Your task to perform on an android device: visit the assistant section in the google photos Image 0: 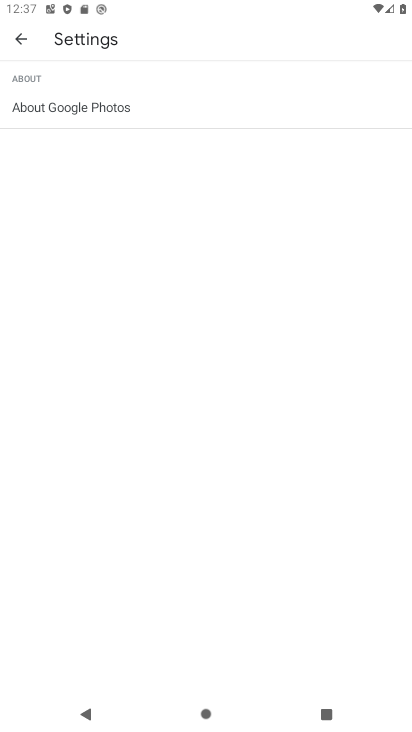
Step 0: press home button
Your task to perform on an android device: visit the assistant section in the google photos Image 1: 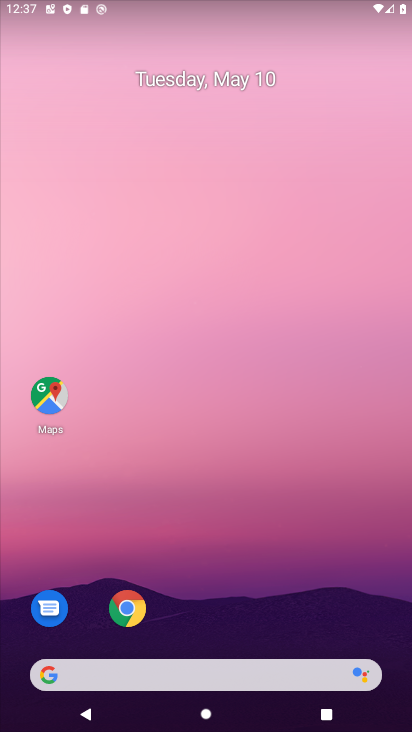
Step 1: drag from (223, 592) to (248, 40)
Your task to perform on an android device: visit the assistant section in the google photos Image 2: 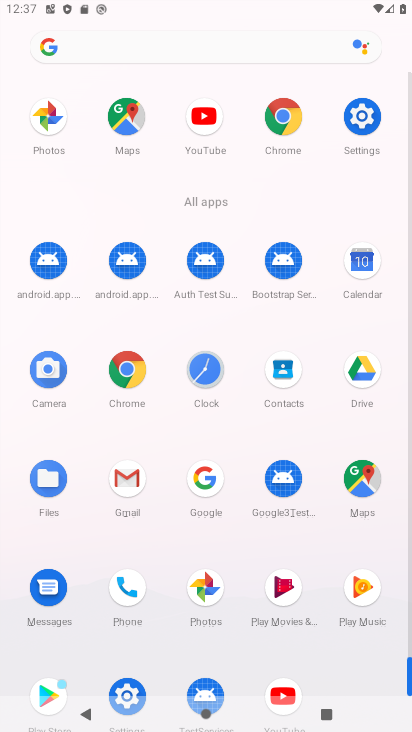
Step 2: click (46, 117)
Your task to perform on an android device: visit the assistant section in the google photos Image 3: 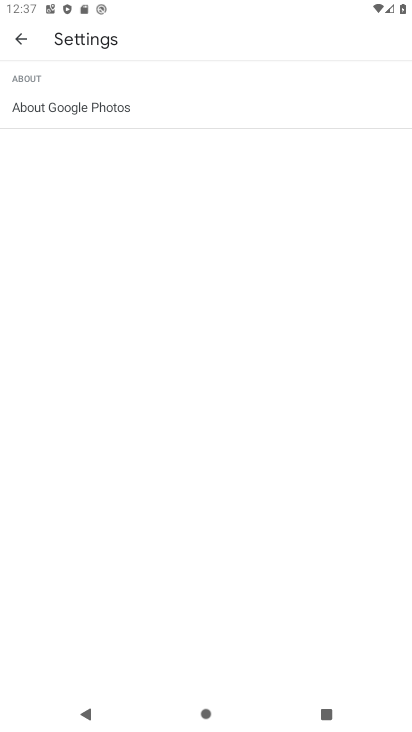
Step 3: press back button
Your task to perform on an android device: visit the assistant section in the google photos Image 4: 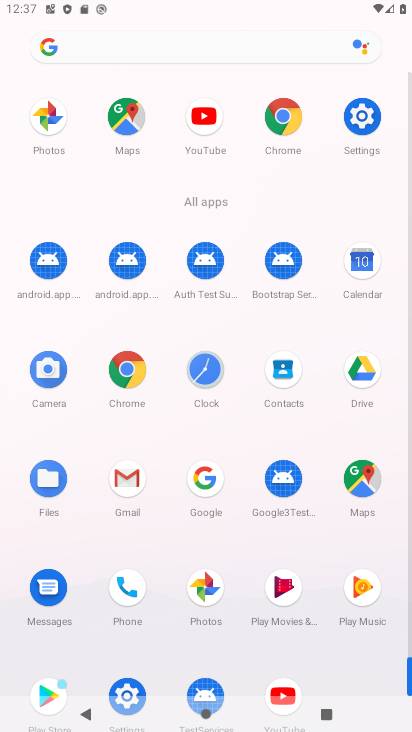
Step 4: click (49, 114)
Your task to perform on an android device: visit the assistant section in the google photos Image 5: 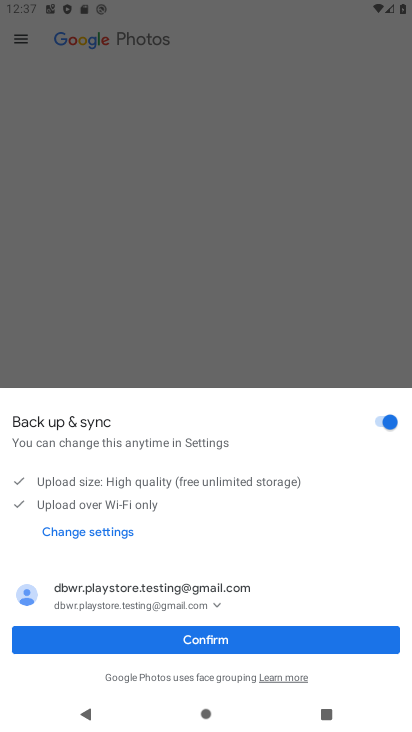
Step 5: click (186, 643)
Your task to perform on an android device: visit the assistant section in the google photos Image 6: 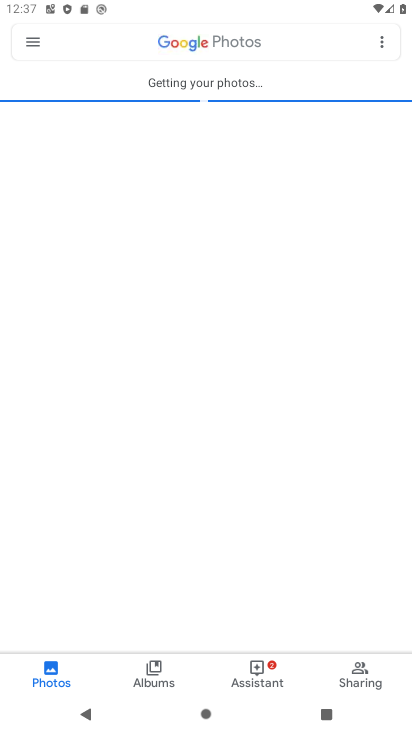
Step 6: click (251, 668)
Your task to perform on an android device: visit the assistant section in the google photos Image 7: 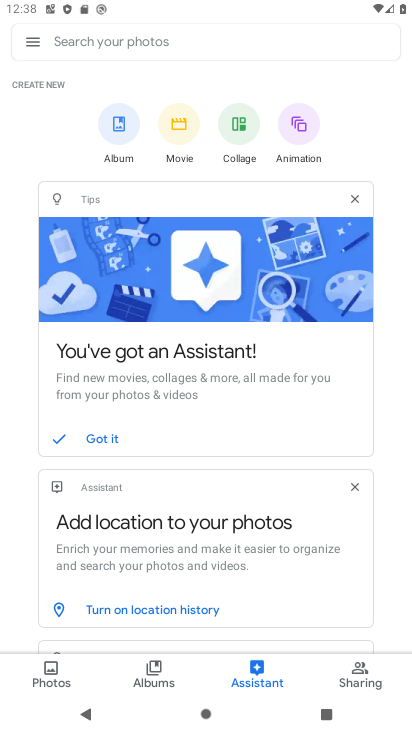
Step 7: task complete